Your task to perform on an android device: manage bookmarks in the chrome app Image 0: 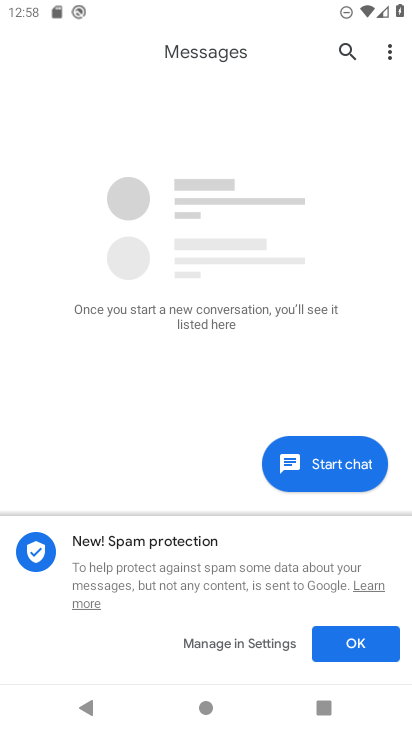
Step 0: press home button
Your task to perform on an android device: manage bookmarks in the chrome app Image 1: 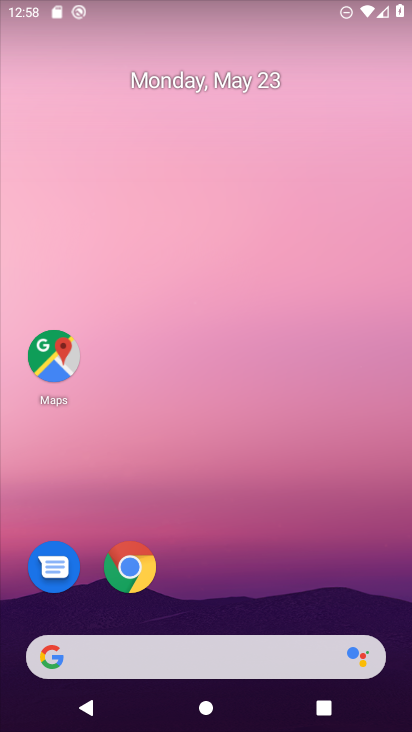
Step 1: click (132, 572)
Your task to perform on an android device: manage bookmarks in the chrome app Image 2: 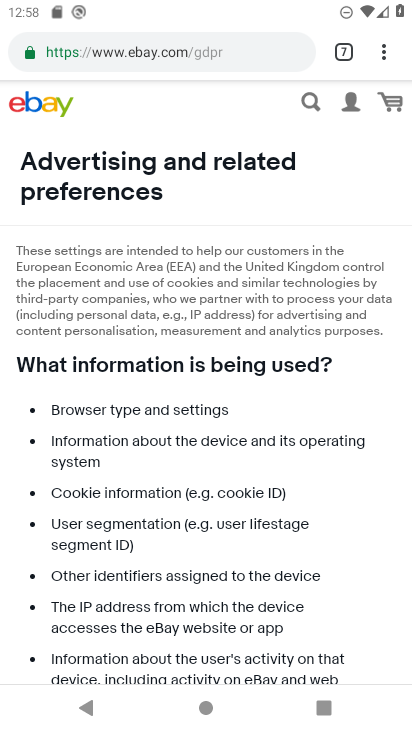
Step 2: click (391, 50)
Your task to perform on an android device: manage bookmarks in the chrome app Image 3: 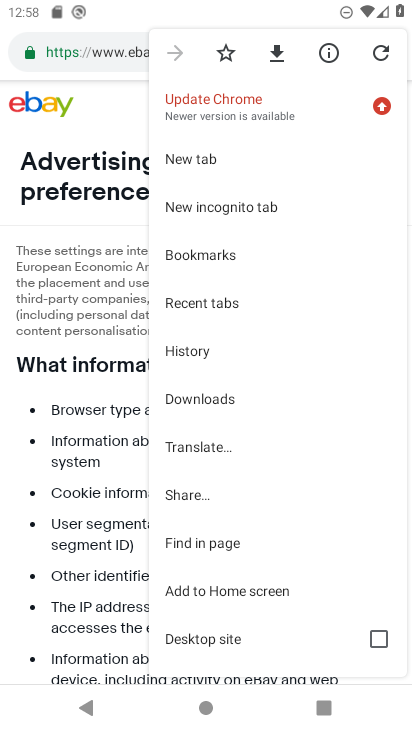
Step 3: click (233, 235)
Your task to perform on an android device: manage bookmarks in the chrome app Image 4: 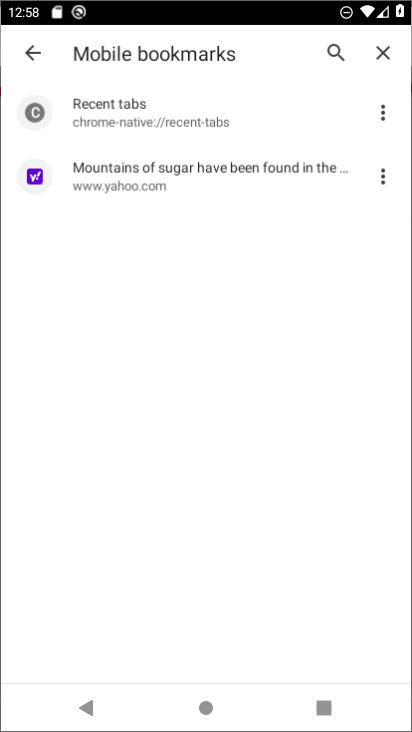
Step 4: click (221, 255)
Your task to perform on an android device: manage bookmarks in the chrome app Image 5: 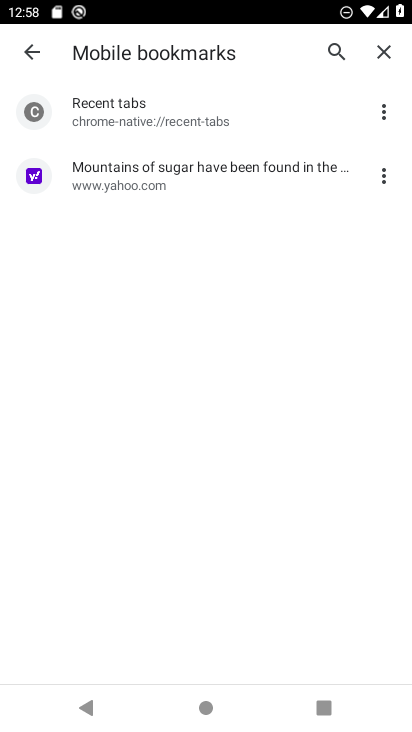
Step 5: click (385, 176)
Your task to perform on an android device: manage bookmarks in the chrome app Image 6: 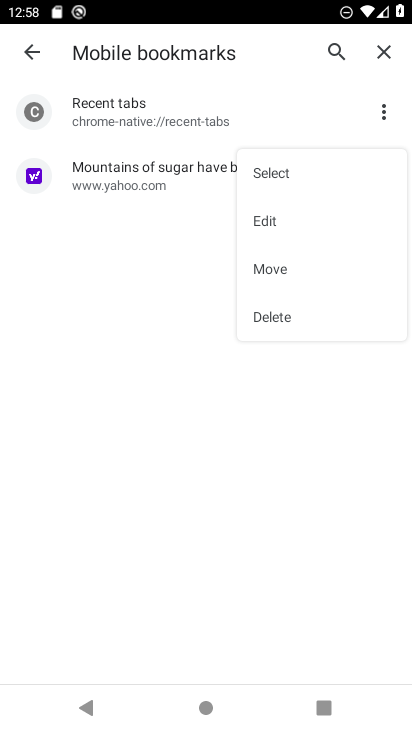
Step 6: click (263, 321)
Your task to perform on an android device: manage bookmarks in the chrome app Image 7: 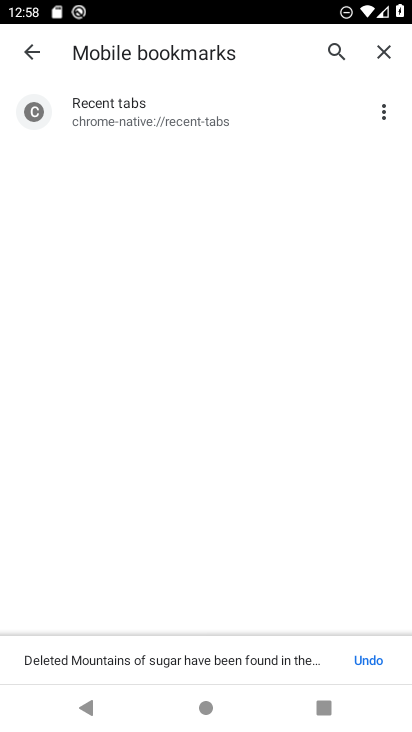
Step 7: task complete